Your task to perform on an android device: Open display settings Image 0: 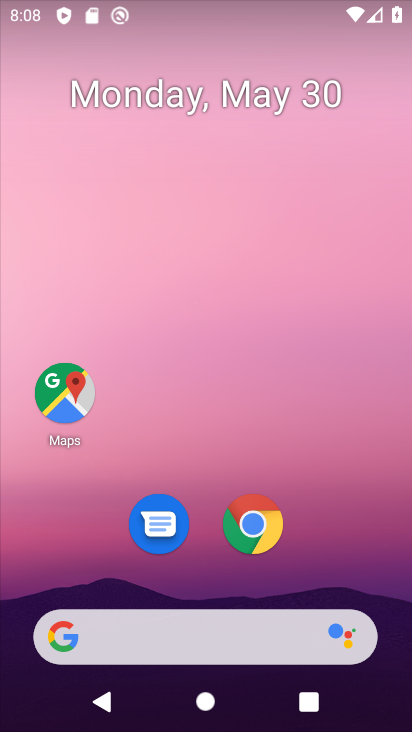
Step 0: drag from (215, 466) to (228, 1)
Your task to perform on an android device: Open display settings Image 1: 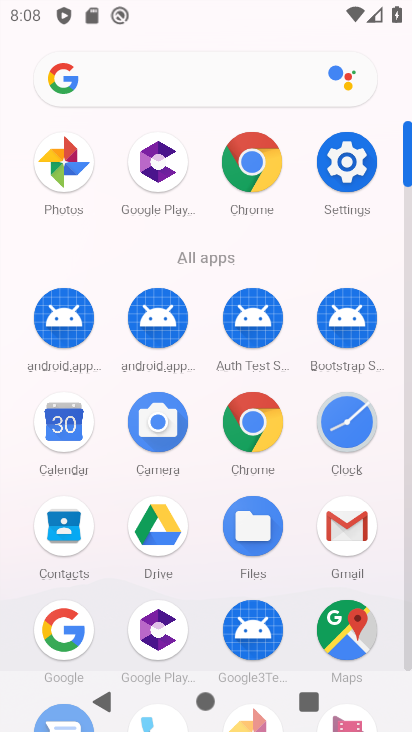
Step 1: click (345, 156)
Your task to perform on an android device: Open display settings Image 2: 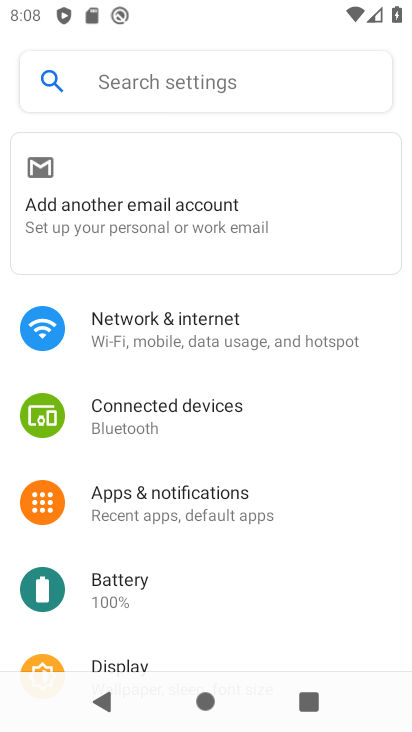
Step 2: drag from (210, 587) to (181, 216)
Your task to perform on an android device: Open display settings Image 3: 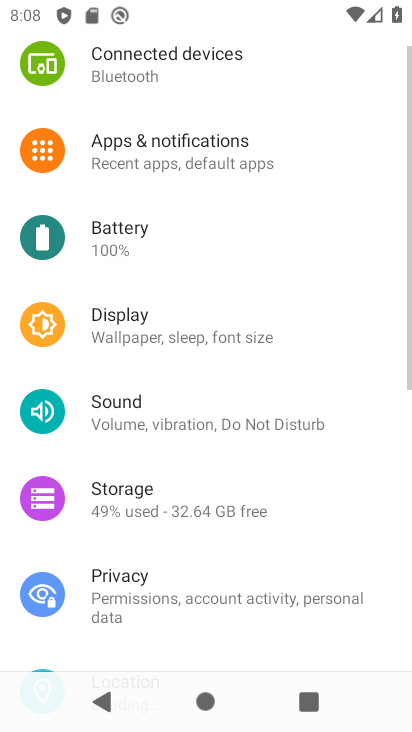
Step 3: click (207, 347)
Your task to perform on an android device: Open display settings Image 4: 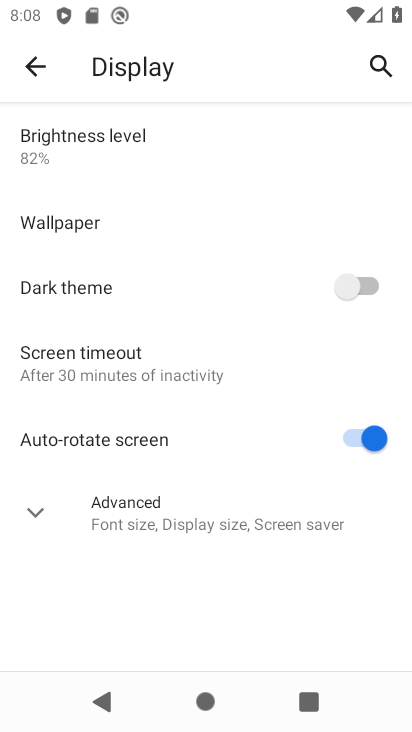
Step 4: task complete